Your task to perform on an android device: change keyboard looks Image 0: 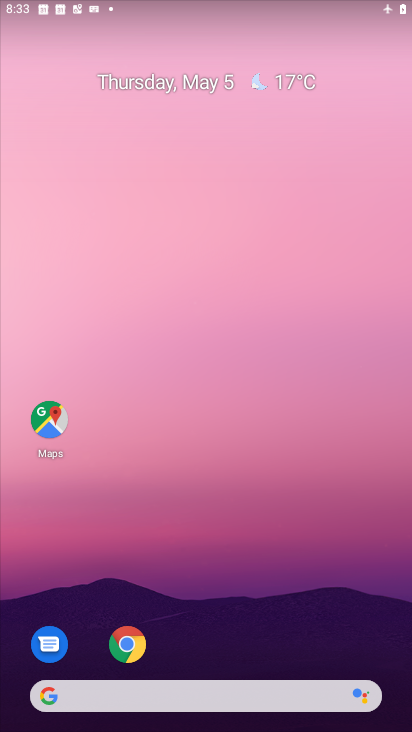
Step 0: drag from (192, 654) to (193, 268)
Your task to perform on an android device: change keyboard looks Image 1: 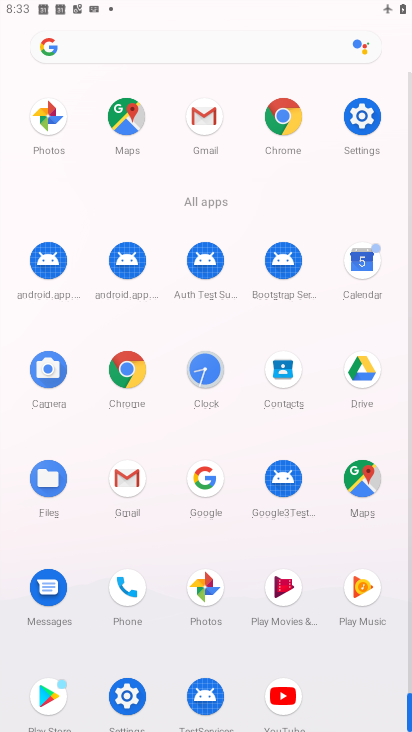
Step 1: click (364, 102)
Your task to perform on an android device: change keyboard looks Image 2: 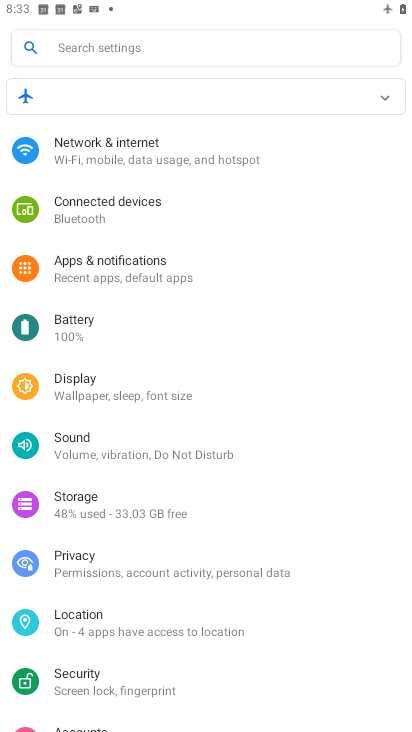
Step 2: drag from (211, 648) to (216, 148)
Your task to perform on an android device: change keyboard looks Image 3: 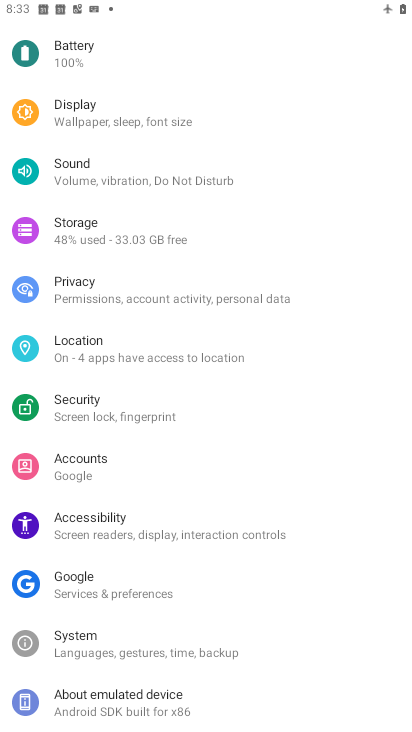
Step 3: click (137, 648)
Your task to perform on an android device: change keyboard looks Image 4: 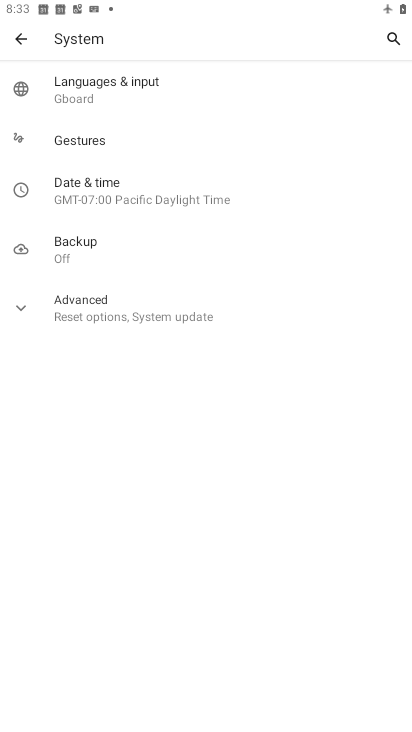
Step 4: click (144, 91)
Your task to perform on an android device: change keyboard looks Image 5: 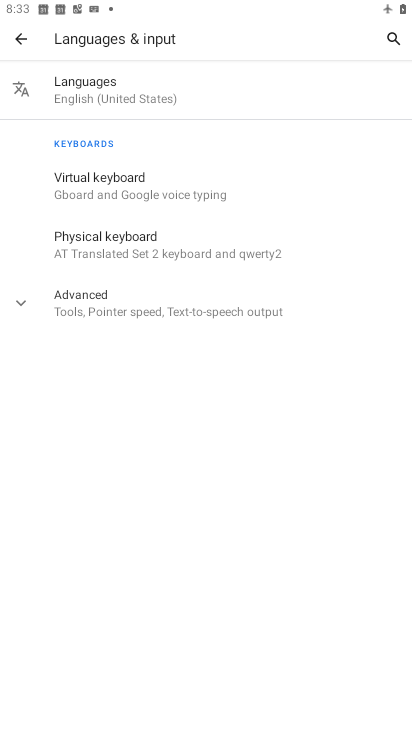
Step 5: click (129, 191)
Your task to perform on an android device: change keyboard looks Image 6: 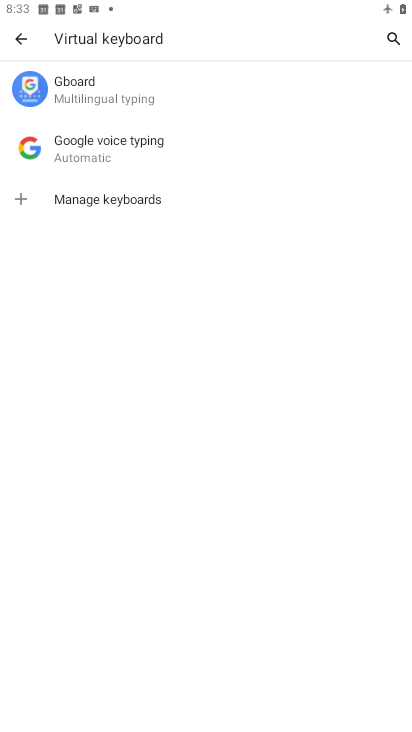
Step 6: click (155, 86)
Your task to perform on an android device: change keyboard looks Image 7: 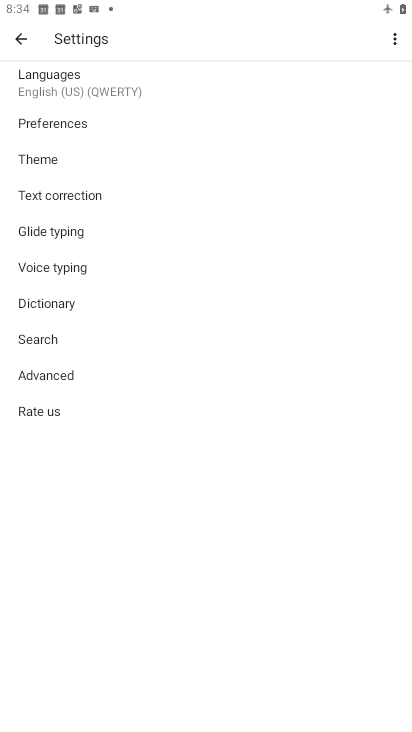
Step 7: click (81, 155)
Your task to perform on an android device: change keyboard looks Image 8: 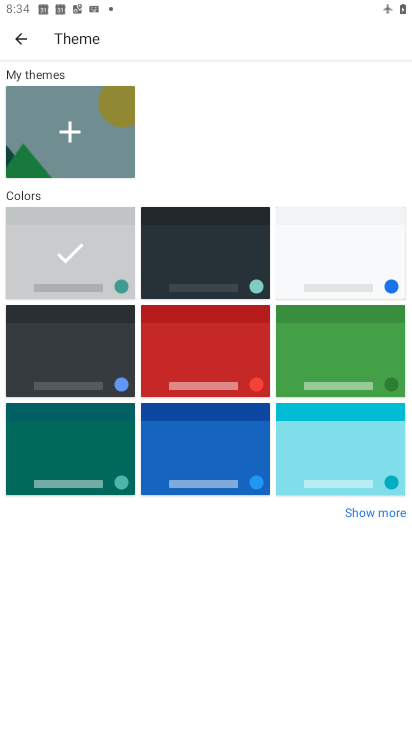
Step 8: click (218, 236)
Your task to perform on an android device: change keyboard looks Image 9: 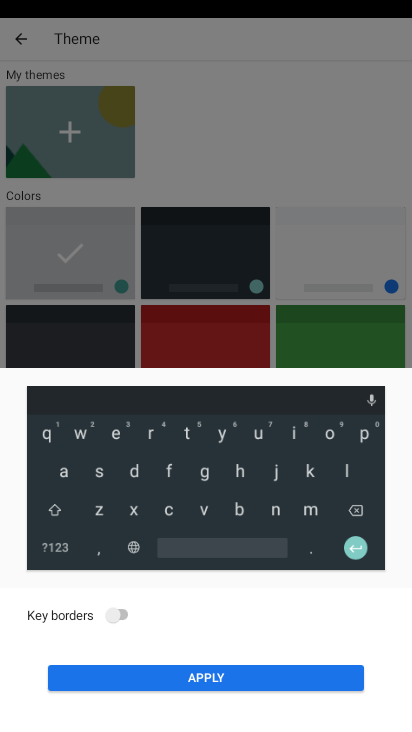
Step 9: click (223, 683)
Your task to perform on an android device: change keyboard looks Image 10: 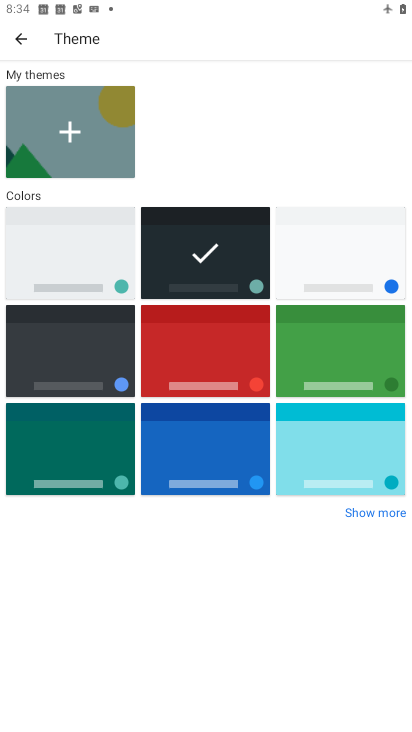
Step 10: task complete